Your task to perform on an android device: turn on location history Image 0: 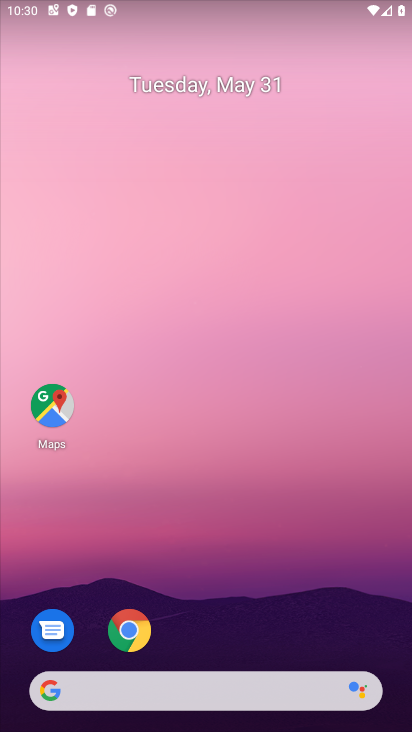
Step 0: drag from (283, 600) to (226, 146)
Your task to perform on an android device: turn on location history Image 1: 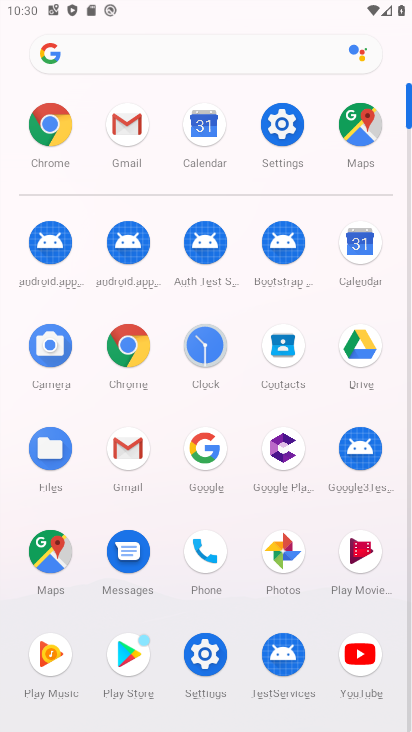
Step 1: click (272, 129)
Your task to perform on an android device: turn on location history Image 2: 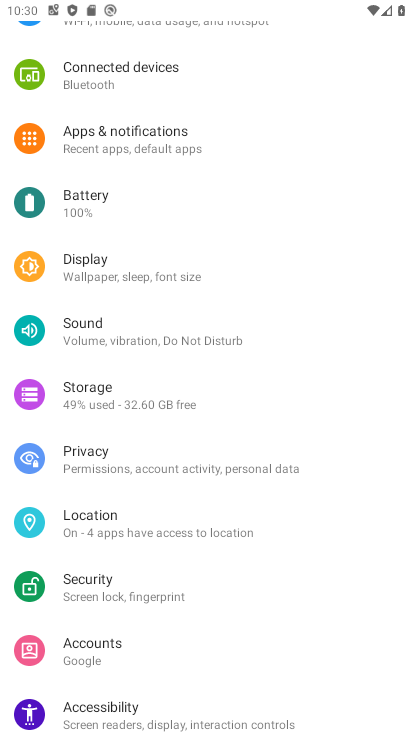
Step 2: click (144, 522)
Your task to perform on an android device: turn on location history Image 3: 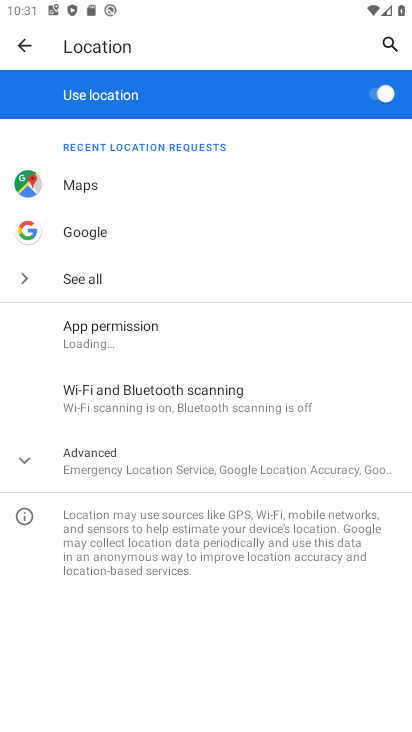
Step 3: click (34, 459)
Your task to perform on an android device: turn on location history Image 4: 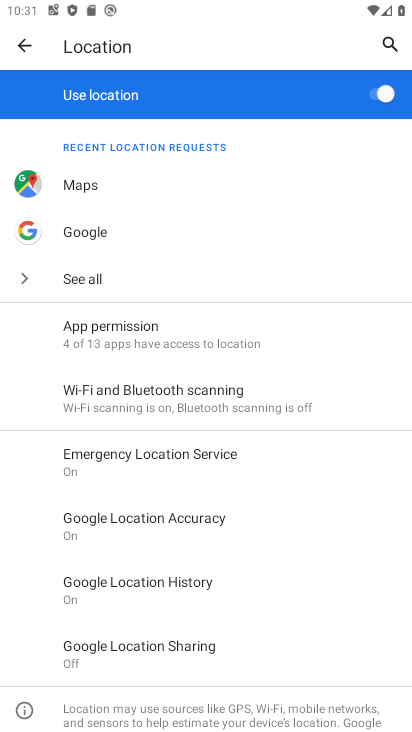
Step 4: click (165, 603)
Your task to perform on an android device: turn on location history Image 5: 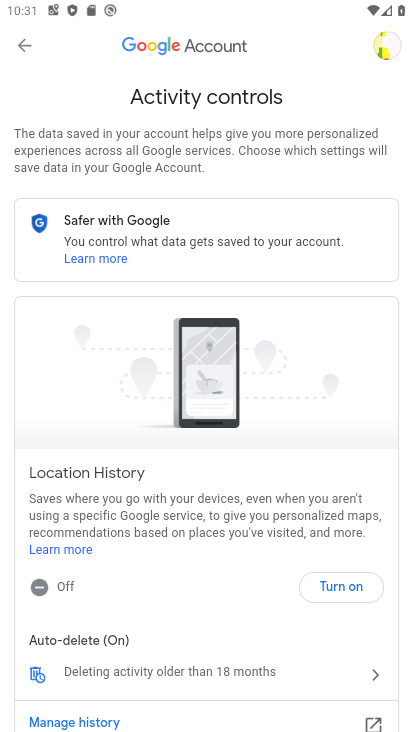
Step 5: task complete